Your task to perform on an android device: check google app version Image 0: 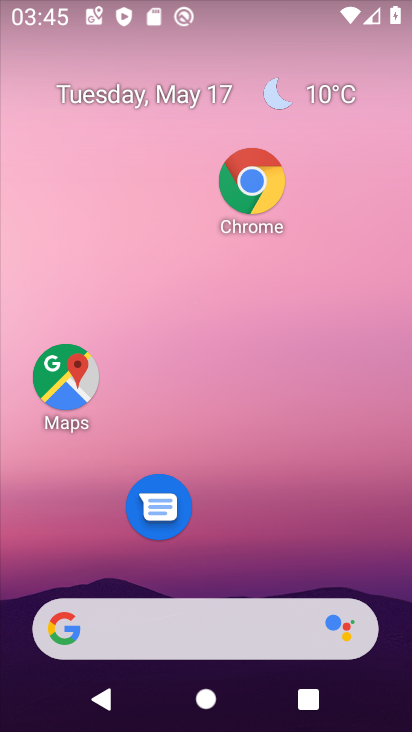
Step 0: click (125, 628)
Your task to perform on an android device: check google app version Image 1: 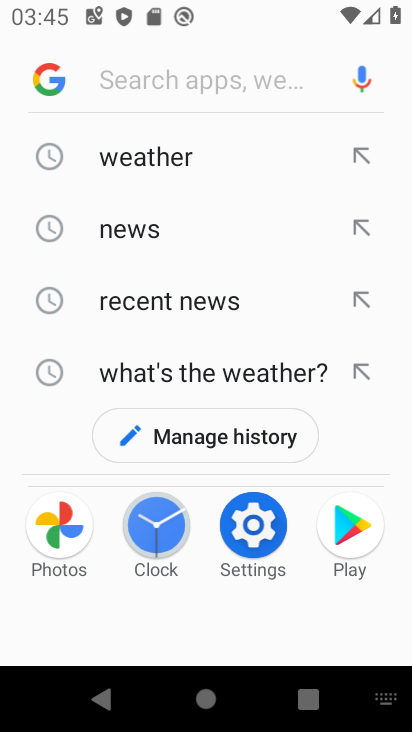
Step 1: click (47, 80)
Your task to perform on an android device: check google app version Image 2: 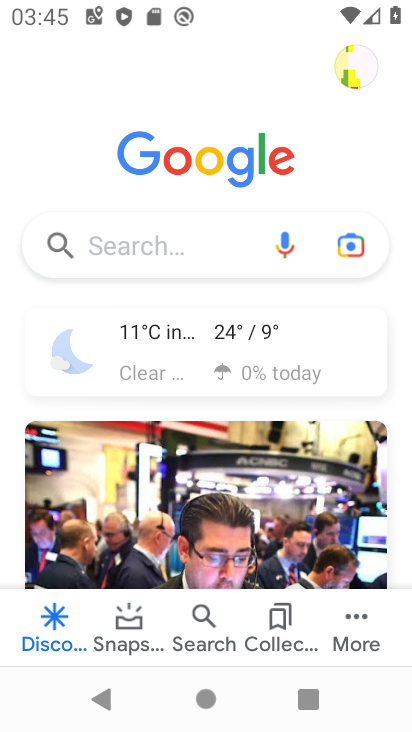
Step 2: click (350, 628)
Your task to perform on an android device: check google app version Image 3: 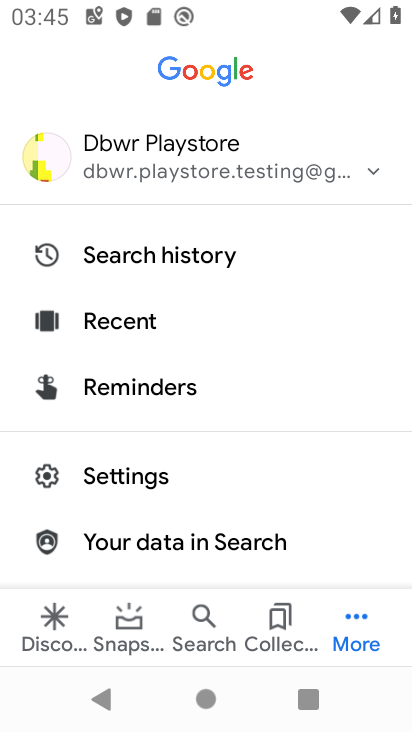
Step 3: drag from (197, 536) to (213, 222)
Your task to perform on an android device: check google app version Image 4: 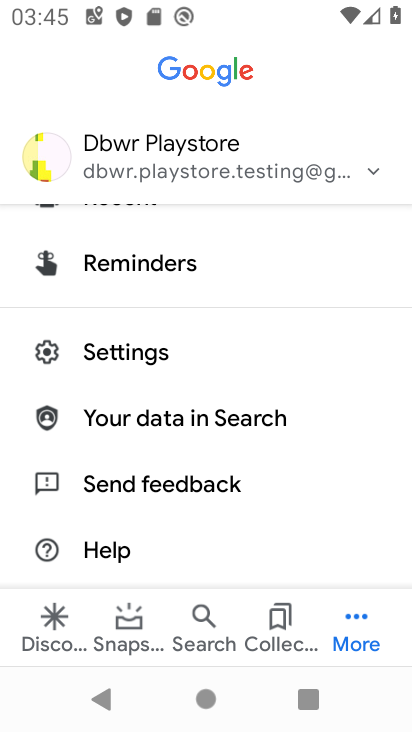
Step 4: click (138, 341)
Your task to perform on an android device: check google app version Image 5: 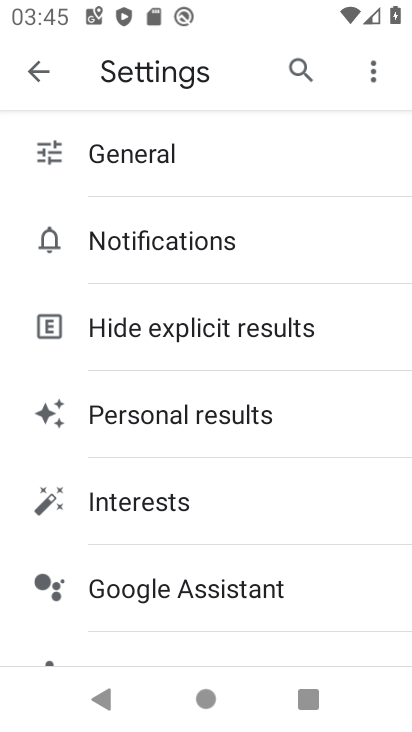
Step 5: drag from (188, 573) to (192, 173)
Your task to perform on an android device: check google app version Image 6: 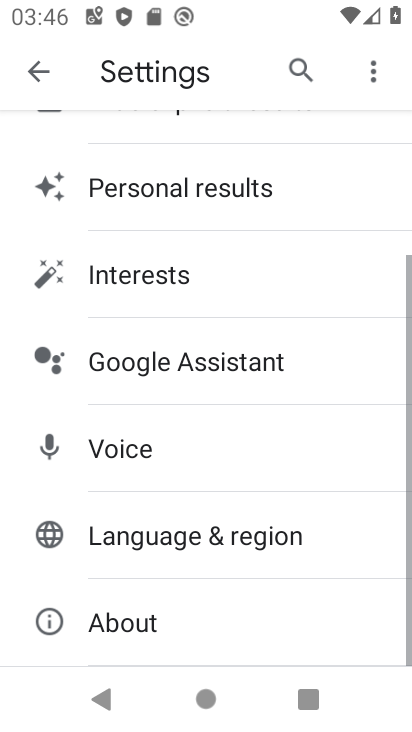
Step 6: click (128, 641)
Your task to perform on an android device: check google app version Image 7: 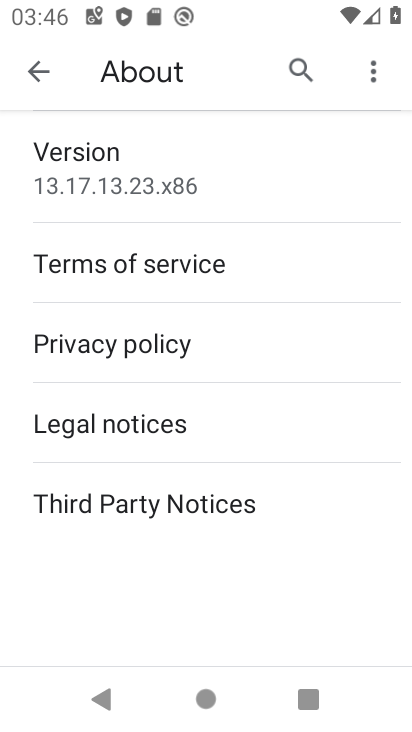
Step 7: task complete